Your task to perform on an android device: open a bookmark in the chrome app Image 0: 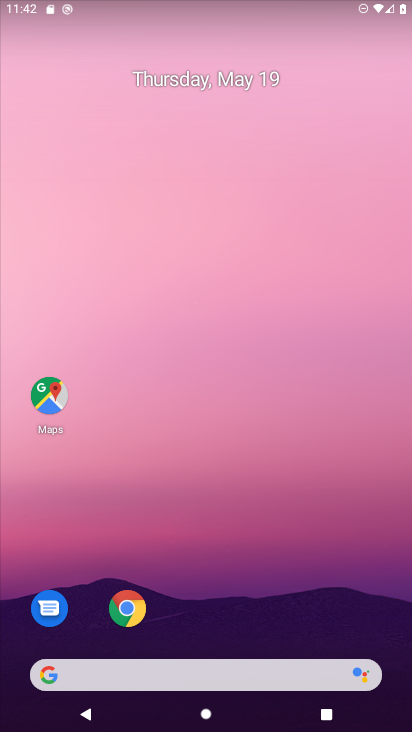
Step 0: click (146, 606)
Your task to perform on an android device: open a bookmark in the chrome app Image 1: 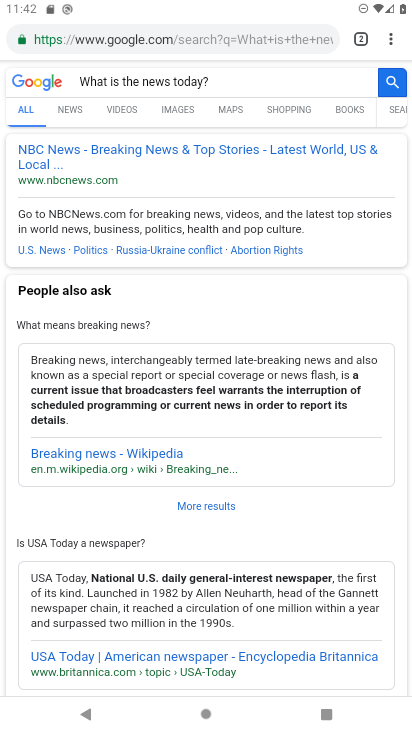
Step 1: task complete